Your task to perform on an android device: Open Wikipedia Image 0: 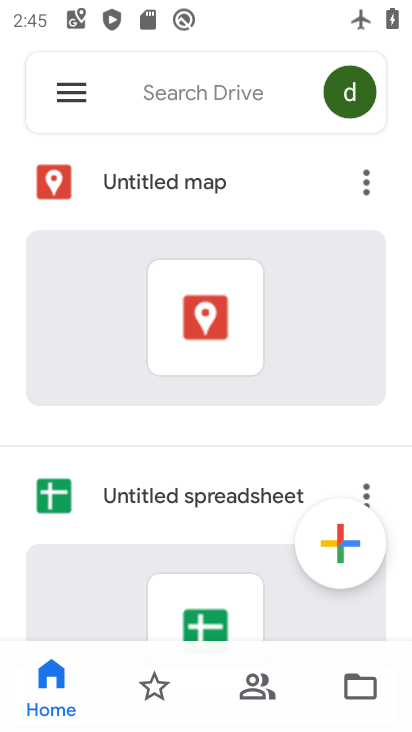
Step 0: press home button
Your task to perform on an android device: Open Wikipedia Image 1: 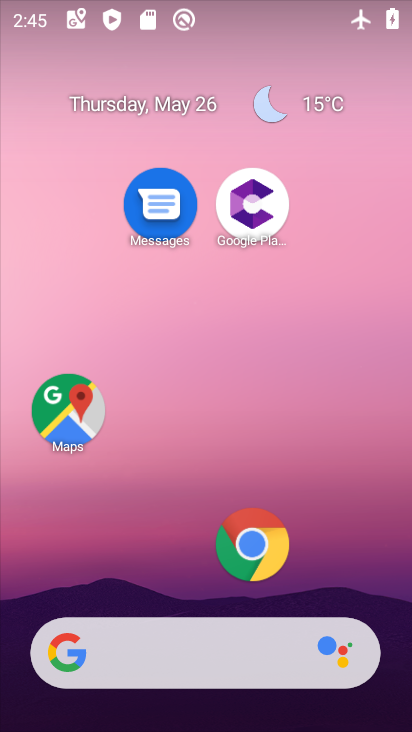
Step 1: click (226, 548)
Your task to perform on an android device: Open Wikipedia Image 2: 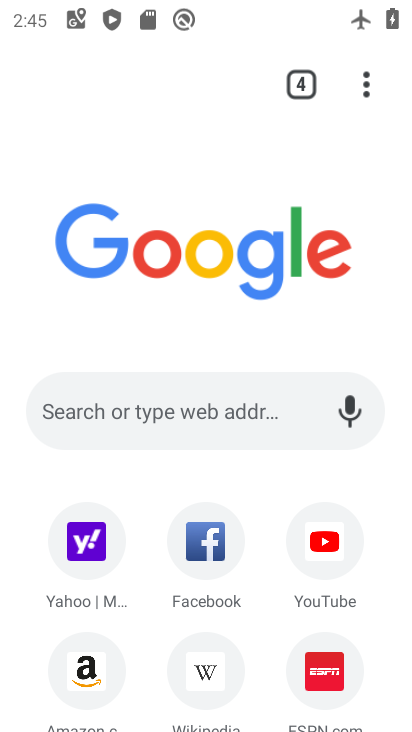
Step 2: click (210, 680)
Your task to perform on an android device: Open Wikipedia Image 3: 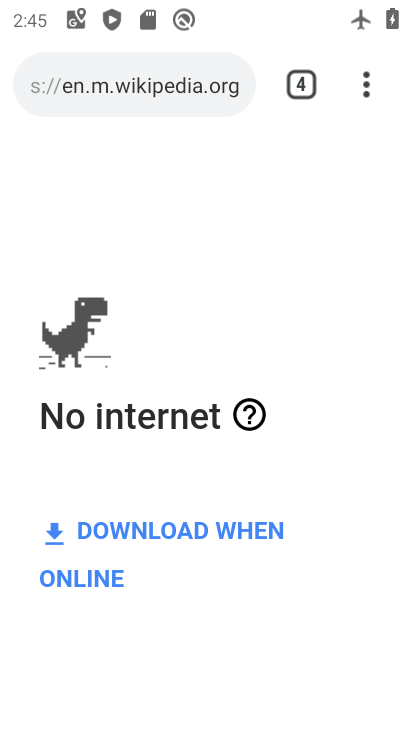
Step 3: drag from (314, 15) to (310, 561)
Your task to perform on an android device: Open Wikipedia Image 4: 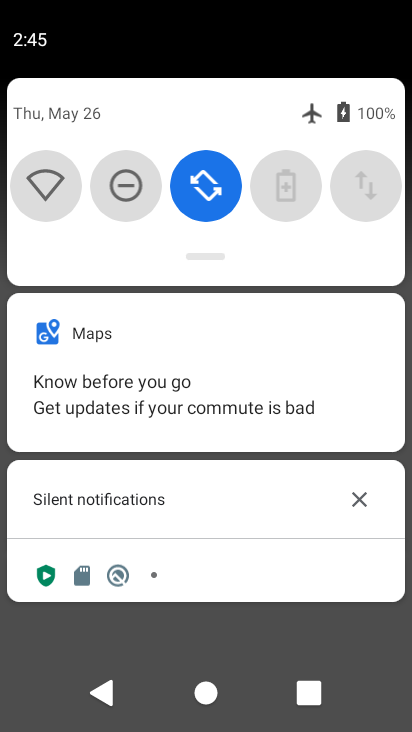
Step 4: drag from (255, 131) to (225, 574)
Your task to perform on an android device: Open Wikipedia Image 5: 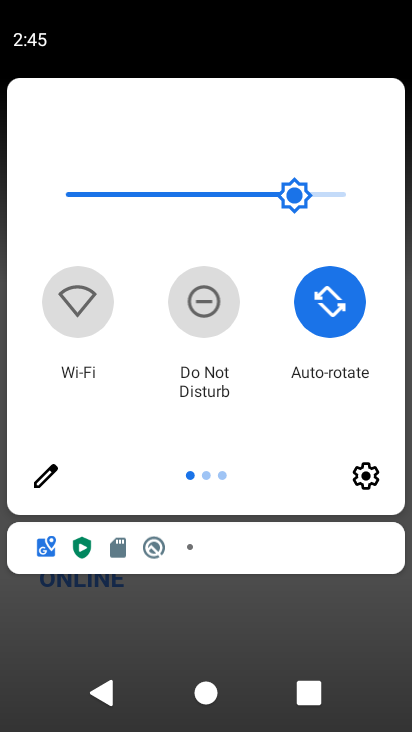
Step 5: drag from (328, 419) to (35, 372)
Your task to perform on an android device: Open Wikipedia Image 6: 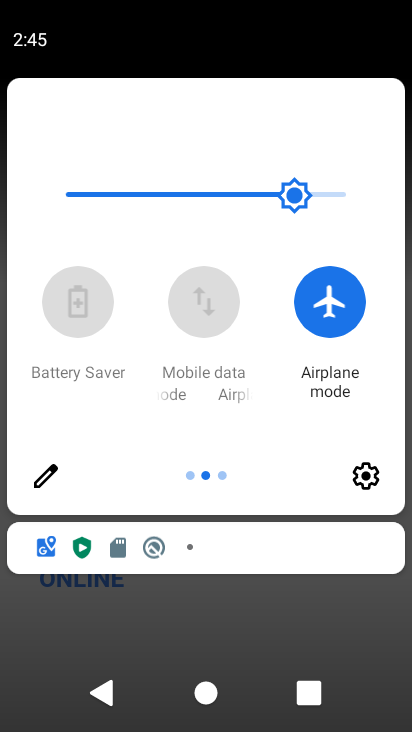
Step 6: click (330, 310)
Your task to perform on an android device: Open Wikipedia Image 7: 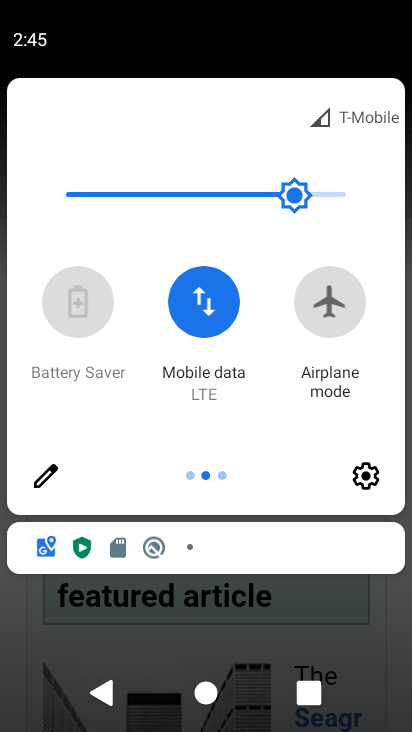
Step 7: task complete